Your task to perform on an android device: Go to CNN.com Image 0: 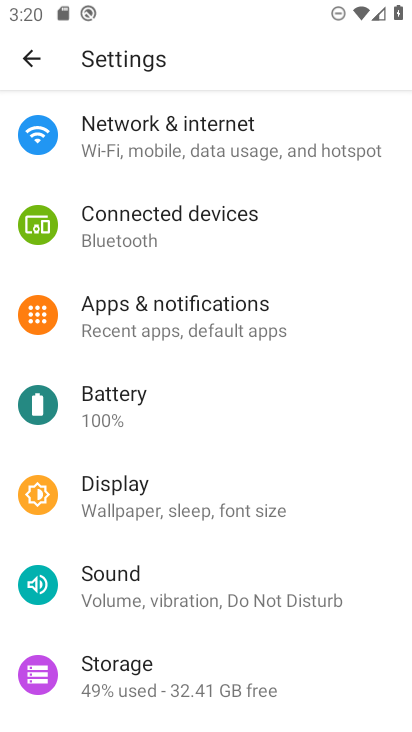
Step 0: press home button
Your task to perform on an android device: Go to CNN.com Image 1: 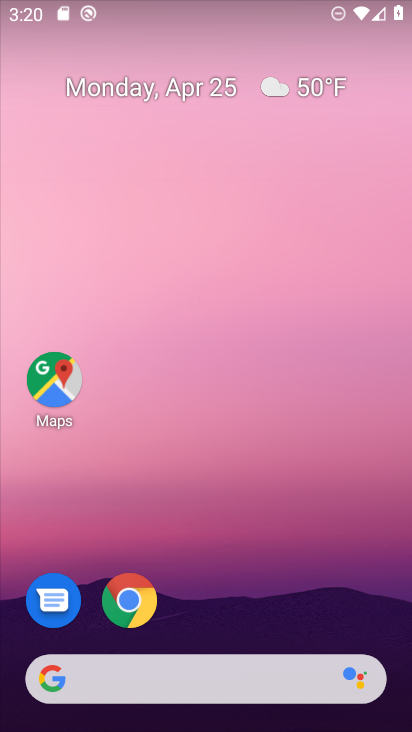
Step 1: click (146, 591)
Your task to perform on an android device: Go to CNN.com Image 2: 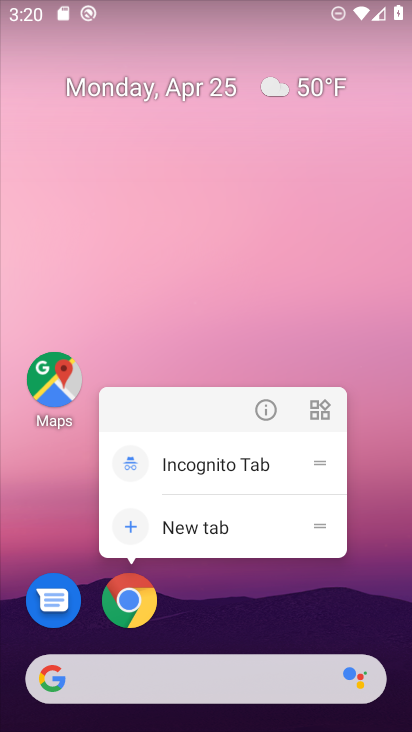
Step 2: click (133, 599)
Your task to perform on an android device: Go to CNN.com Image 3: 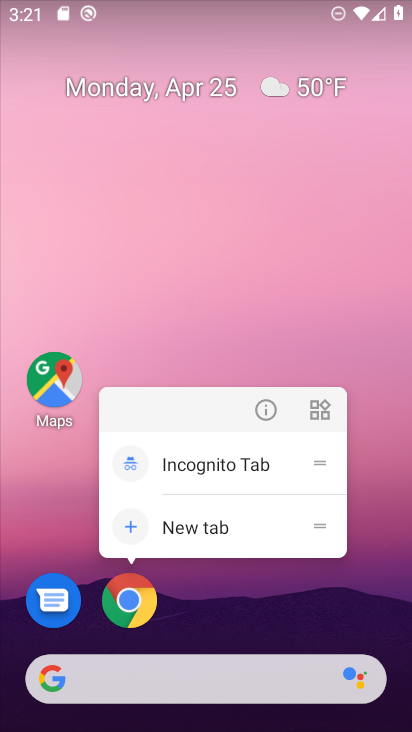
Step 3: click (132, 598)
Your task to perform on an android device: Go to CNN.com Image 4: 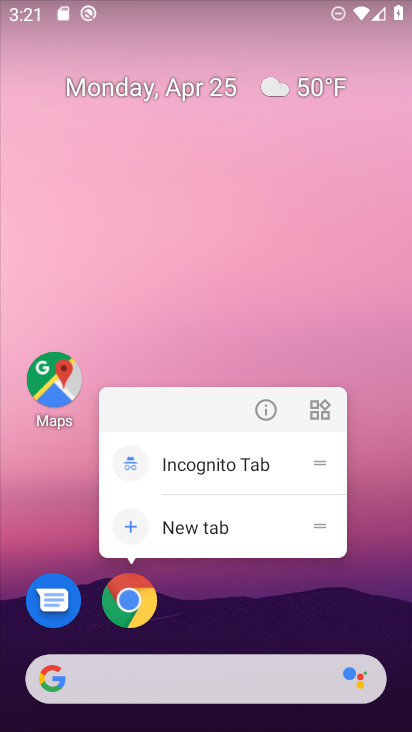
Step 4: click (128, 615)
Your task to perform on an android device: Go to CNN.com Image 5: 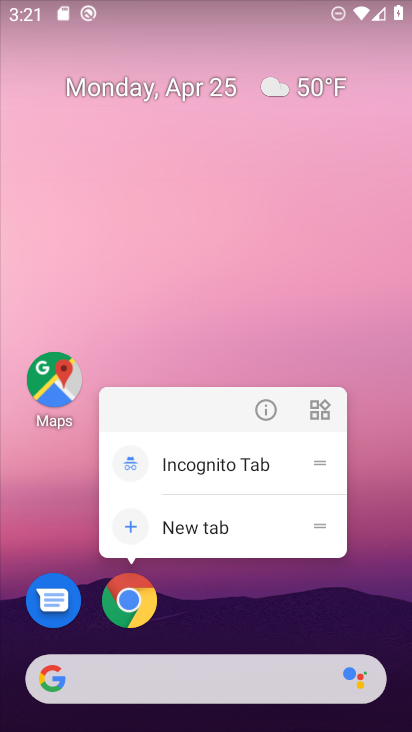
Step 5: click (119, 592)
Your task to perform on an android device: Go to CNN.com Image 6: 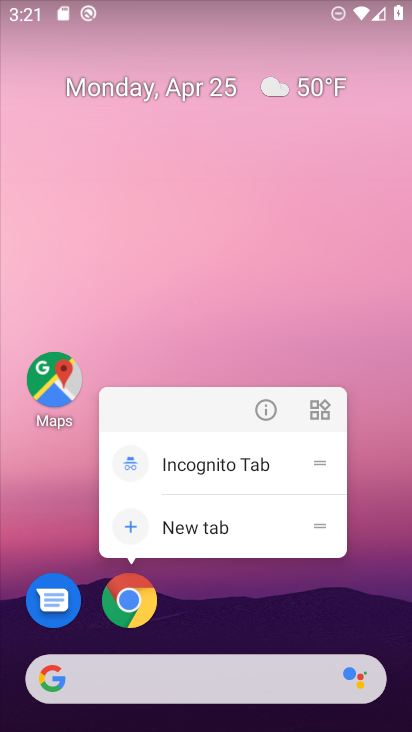
Step 6: click (121, 591)
Your task to perform on an android device: Go to CNN.com Image 7: 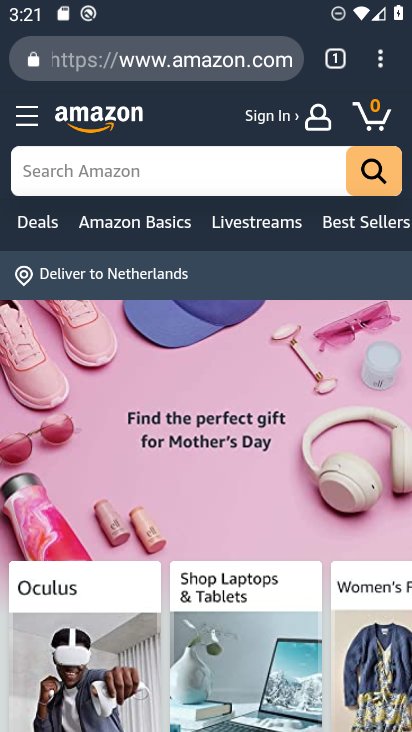
Step 7: click (329, 61)
Your task to perform on an android device: Go to CNN.com Image 8: 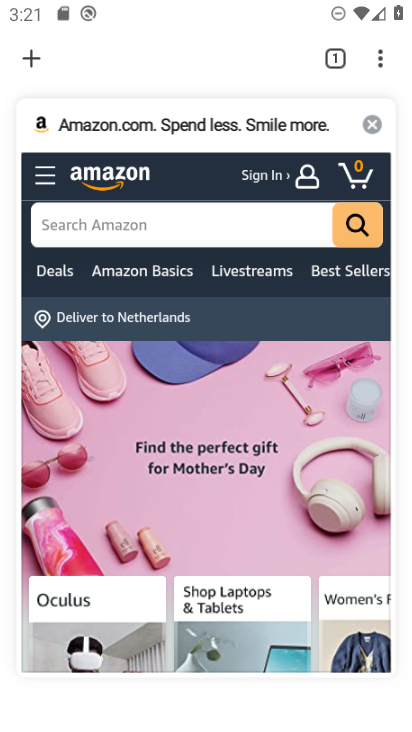
Step 8: click (40, 48)
Your task to perform on an android device: Go to CNN.com Image 9: 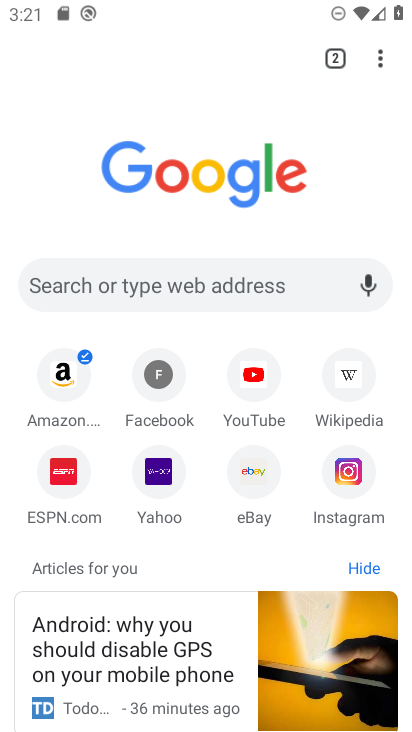
Step 9: click (172, 269)
Your task to perform on an android device: Go to CNN.com Image 10: 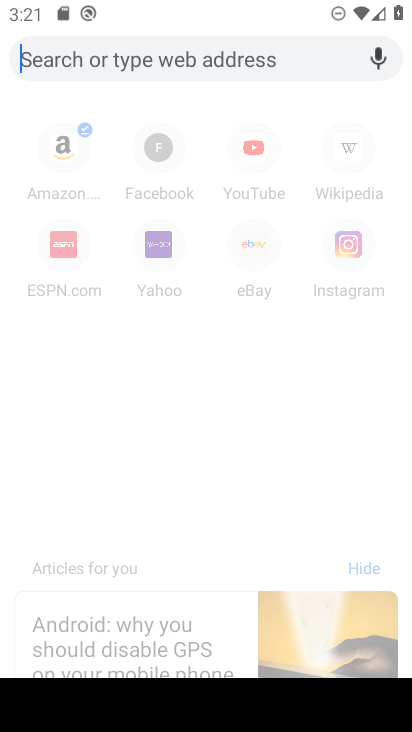
Step 10: type "cnn"
Your task to perform on an android device: Go to CNN.com Image 11: 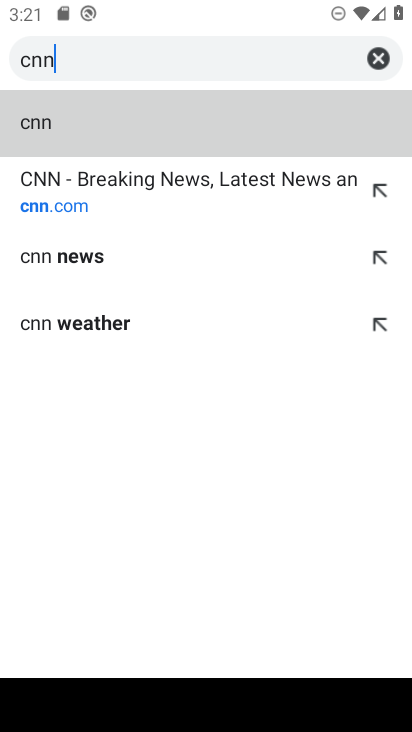
Step 11: click (197, 199)
Your task to perform on an android device: Go to CNN.com Image 12: 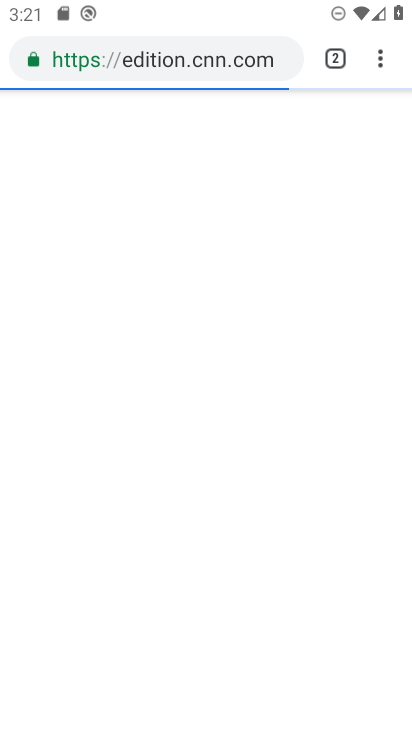
Step 12: task complete